Your task to perform on an android device: Open calendar and show me the fourth week of next month Image 0: 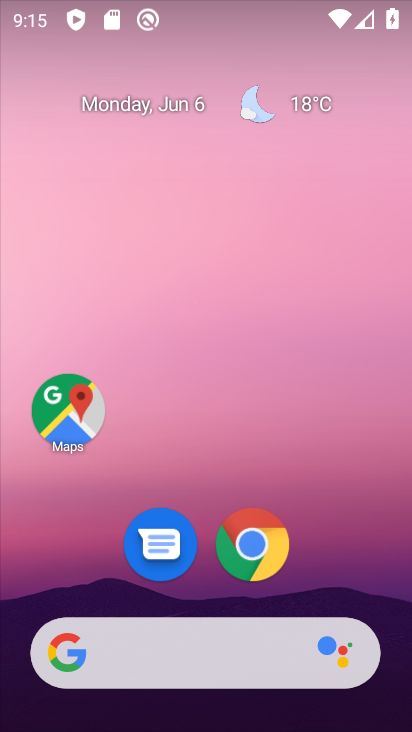
Step 0: drag from (400, 676) to (280, 132)
Your task to perform on an android device: Open calendar and show me the fourth week of next month Image 1: 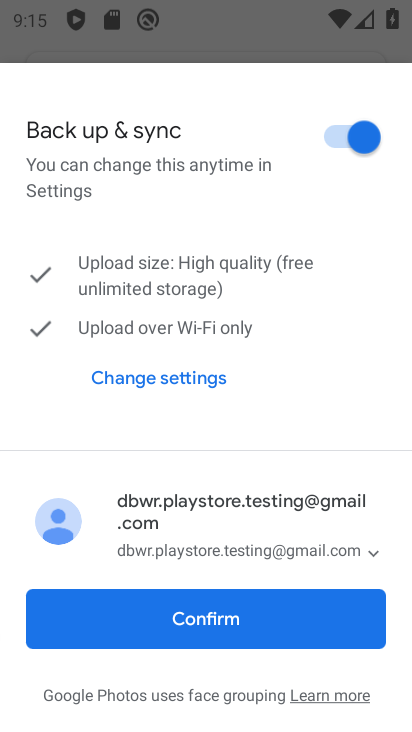
Step 1: press home button
Your task to perform on an android device: Open calendar and show me the fourth week of next month Image 2: 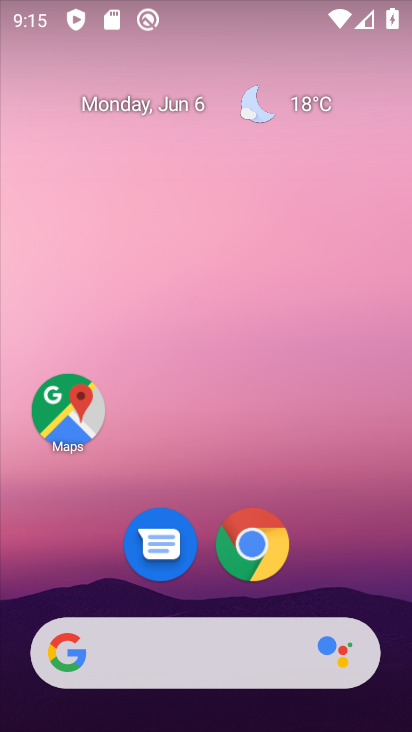
Step 2: drag from (392, 685) to (337, 131)
Your task to perform on an android device: Open calendar and show me the fourth week of next month Image 3: 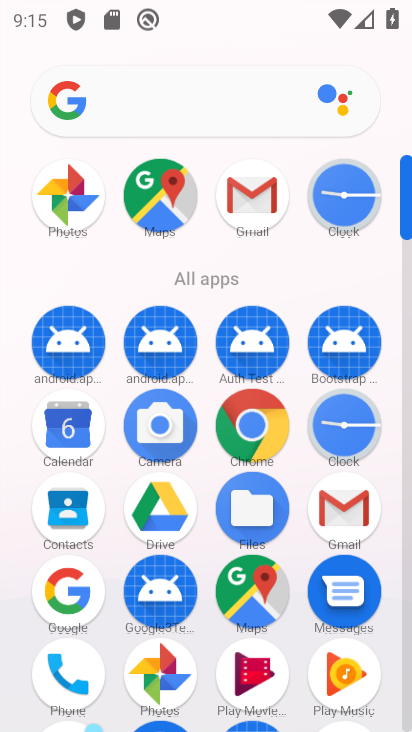
Step 3: click (407, 679)
Your task to perform on an android device: Open calendar and show me the fourth week of next month Image 4: 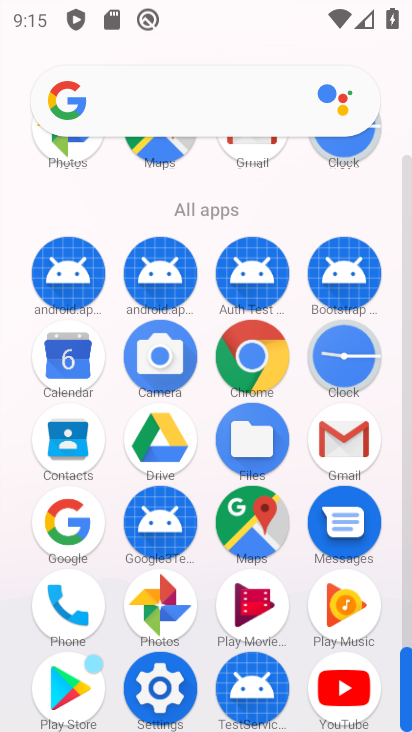
Step 4: click (68, 360)
Your task to perform on an android device: Open calendar and show me the fourth week of next month Image 5: 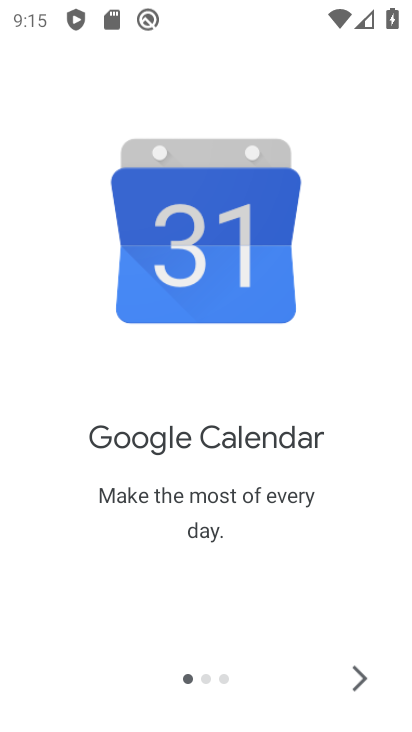
Step 5: click (367, 682)
Your task to perform on an android device: Open calendar and show me the fourth week of next month Image 6: 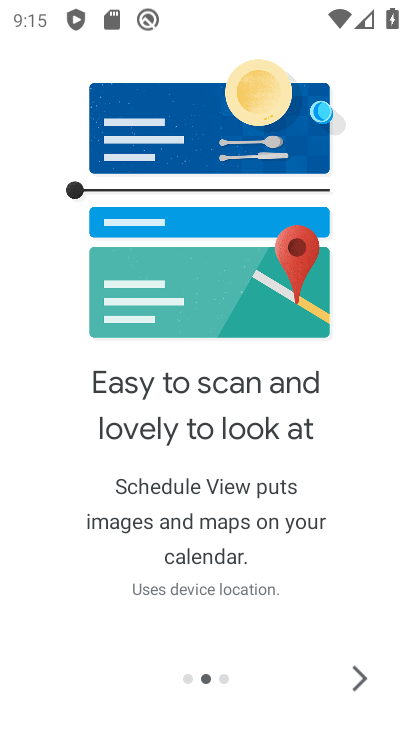
Step 6: click (367, 682)
Your task to perform on an android device: Open calendar and show me the fourth week of next month Image 7: 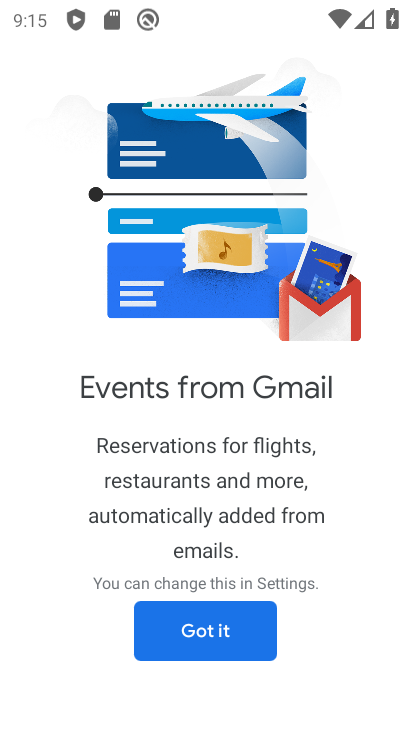
Step 7: click (203, 629)
Your task to perform on an android device: Open calendar and show me the fourth week of next month Image 8: 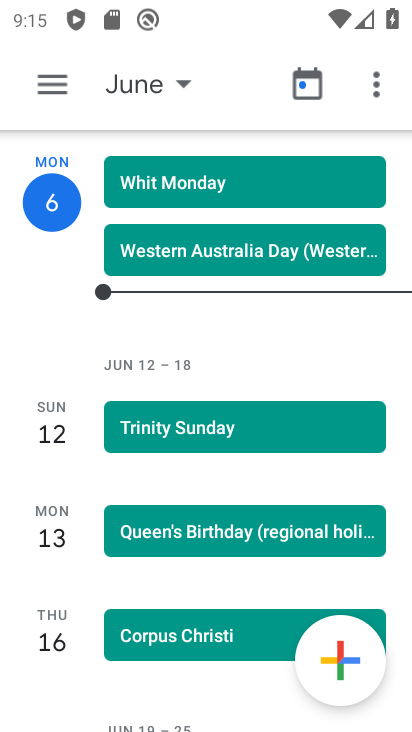
Step 8: click (53, 93)
Your task to perform on an android device: Open calendar and show me the fourth week of next month Image 9: 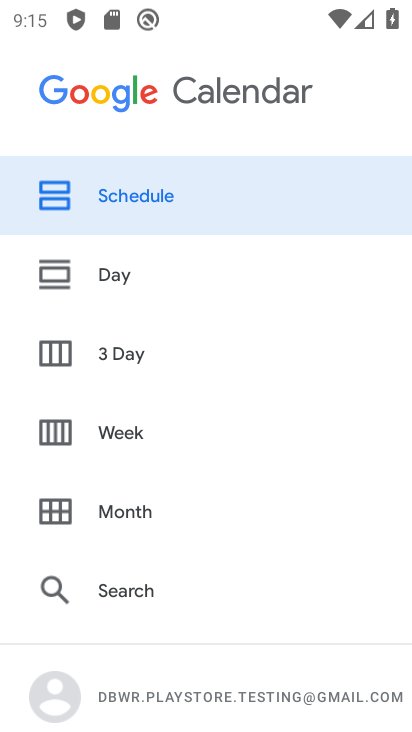
Step 9: click (115, 429)
Your task to perform on an android device: Open calendar and show me the fourth week of next month Image 10: 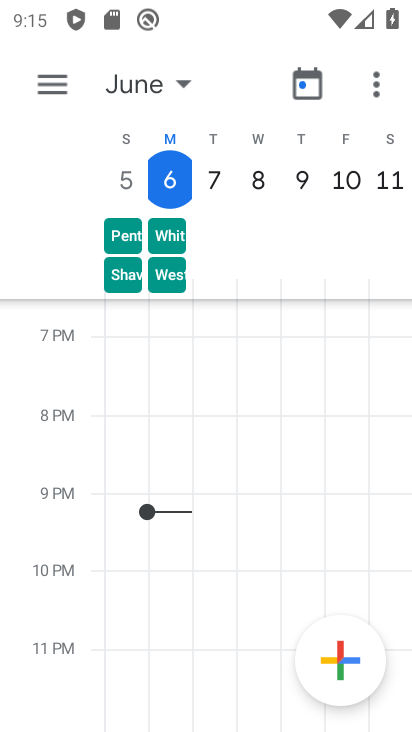
Step 10: click (180, 82)
Your task to perform on an android device: Open calendar and show me the fourth week of next month Image 11: 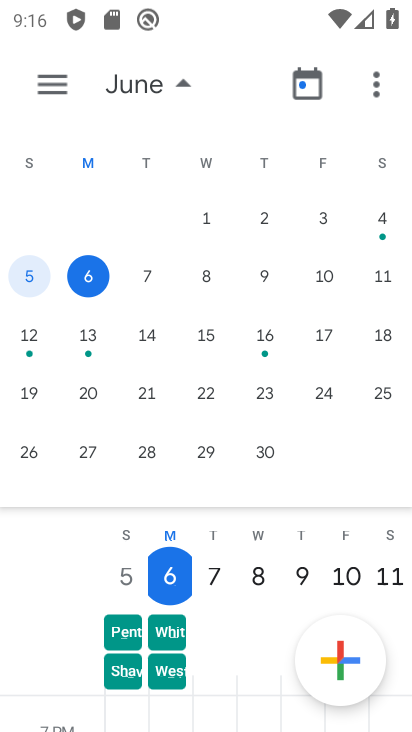
Step 11: drag from (389, 322) to (50, 351)
Your task to perform on an android device: Open calendar and show me the fourth week of next month Image 12: 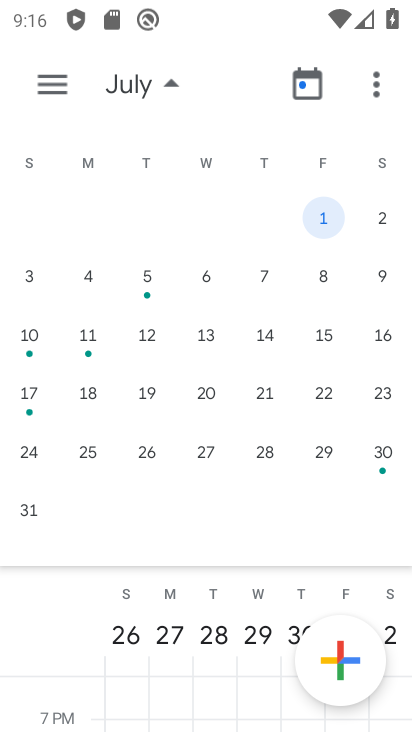
Step 12: click (27, 443)
Your task to perform on an android device: Open calendar and show me the fourth week of next month Image 13: 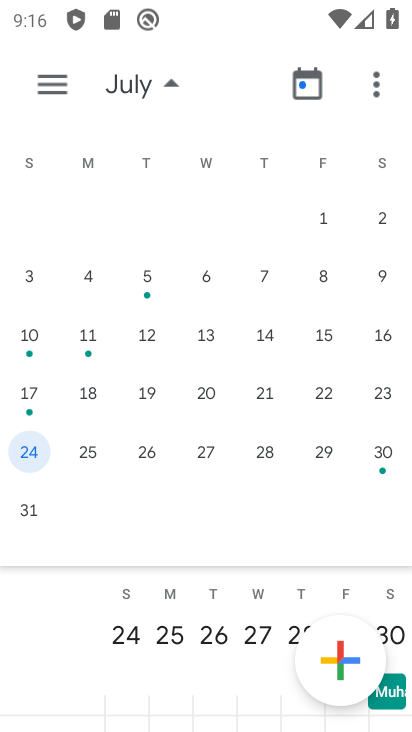
Step 13: task complete